Your task to perform on an android device: change text size in settings app Image 0: 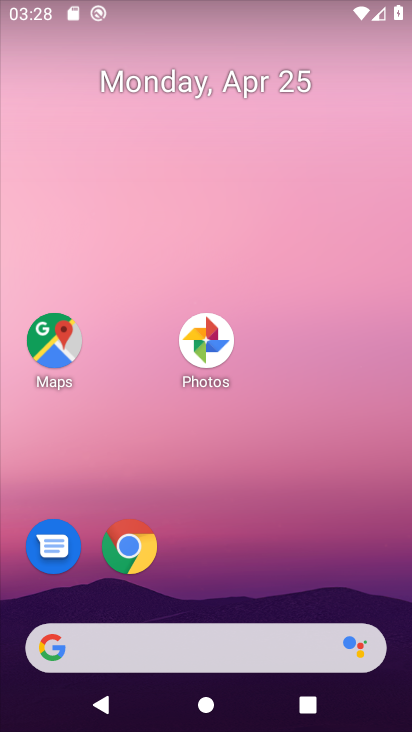
Step 0: drag from (298, 408) to (301, 131)
Your task to perform on an android device: change text size in settings app Image 1: 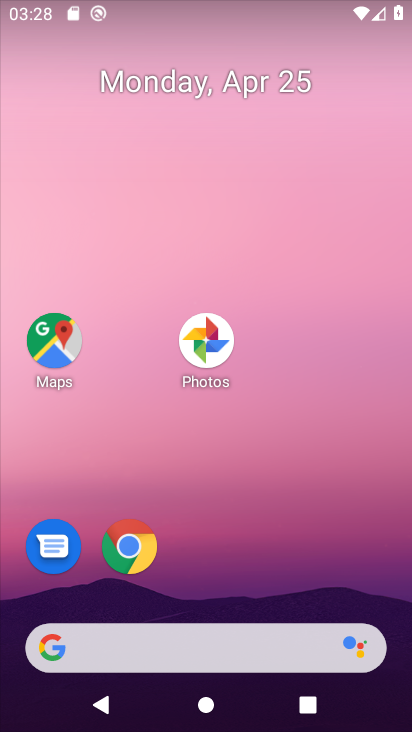
Step 1: drag from (270, 587) to (332, 236)
Your task to perform on an android device: change text size in settings app Image 2: 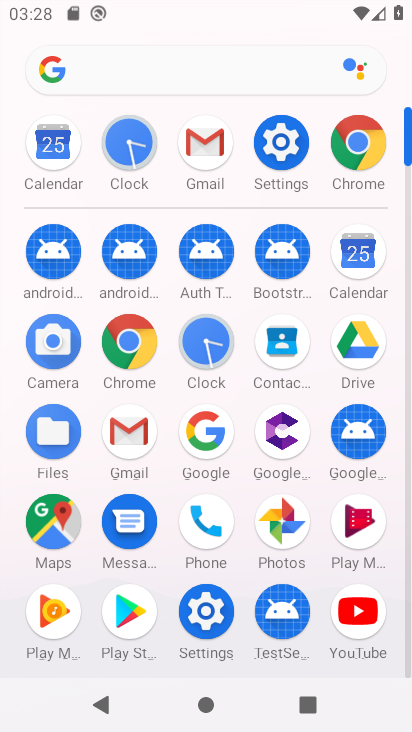
Step 2: click (285, 136)
Your task to perform on an android device: change text size in settings app Image 3: 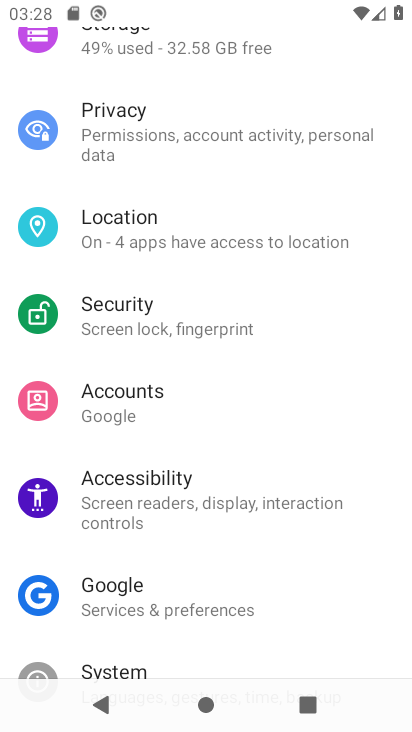
Step 3: click (189, 488)
Your task to perform on an android device: change text size in settings app Image 4: 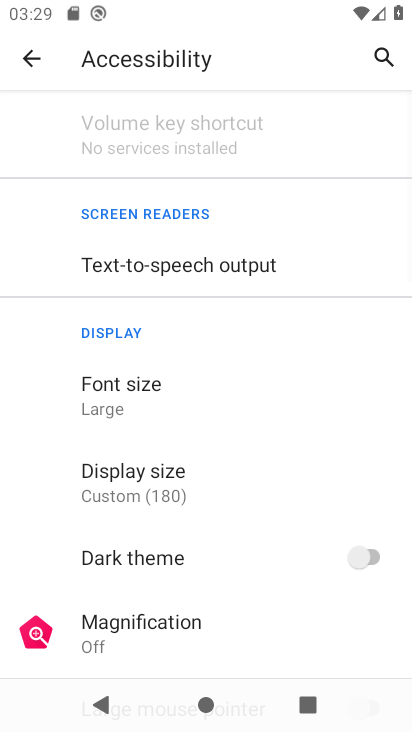
Step 4: click (151, 384)
Your task to perform on an android device: change text size in settings app Image 5: 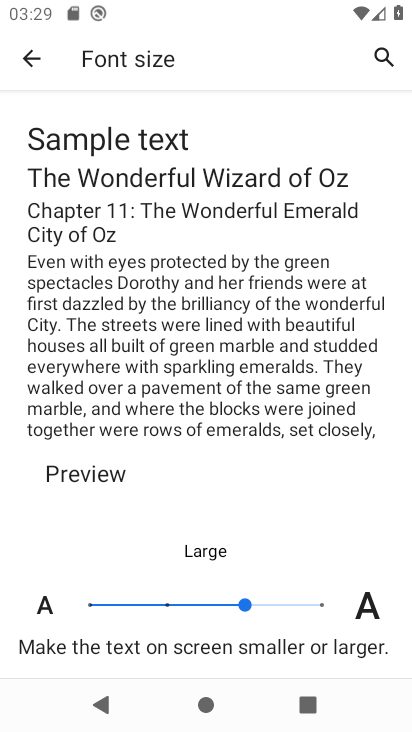
Step 5: click (174, 604)
Your task to perform on an android device: change text size in settings app Image 6: 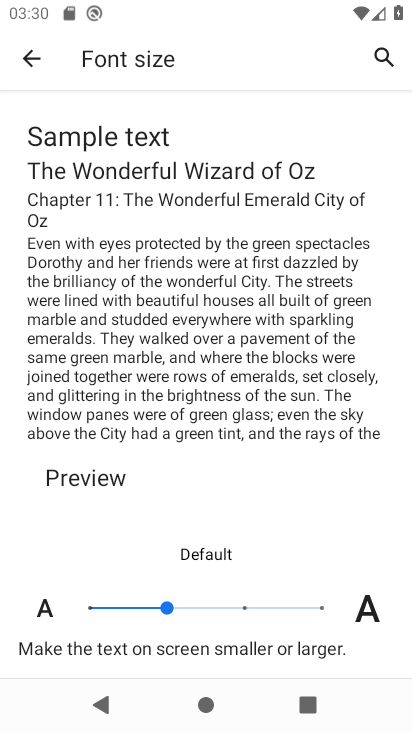
Step 6: task complete